Your task to perform on an android device: Open settings Image 0: 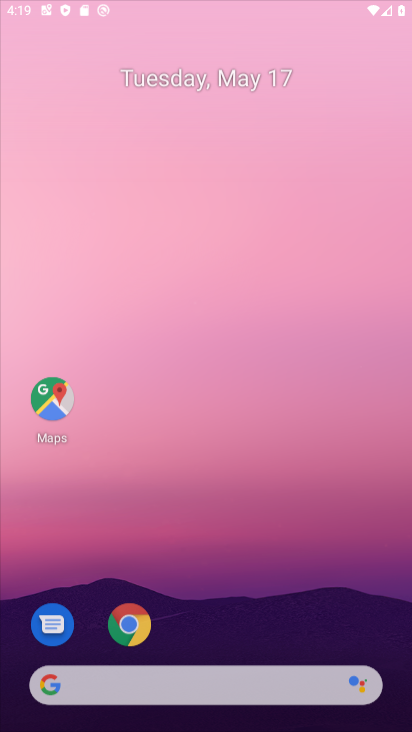
Step 0: drag from (188, 538) to (186, 194)
Your task to perform on an android device: Open settings Image 1: 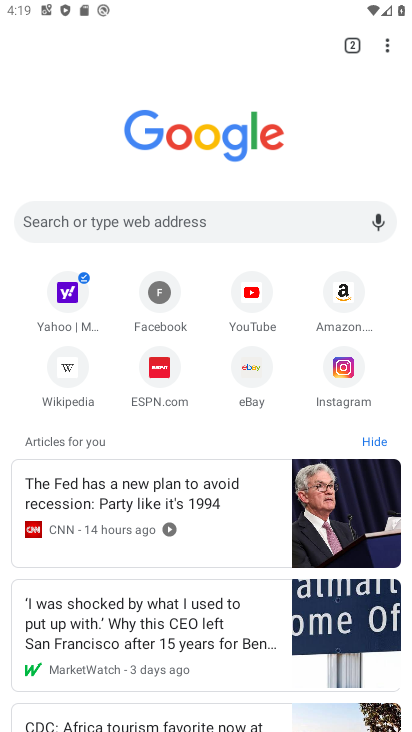
Step 1: press home button
Your task to perform on an android device: Open settings Image 2: 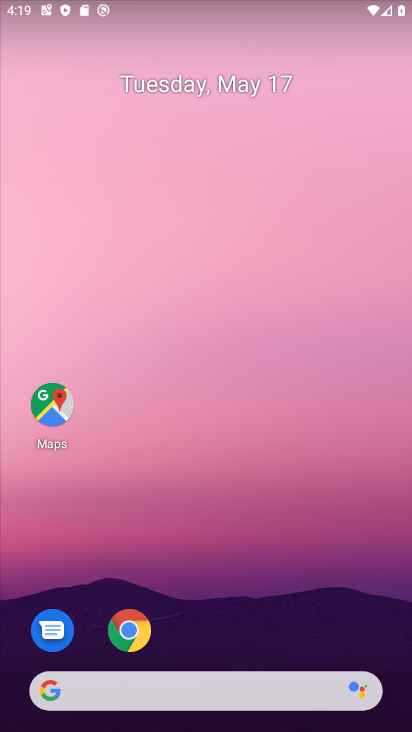
Step 2: drag from (197, 719) to (194, 178)
Your task to perform on an android device: Open settings Image 3: 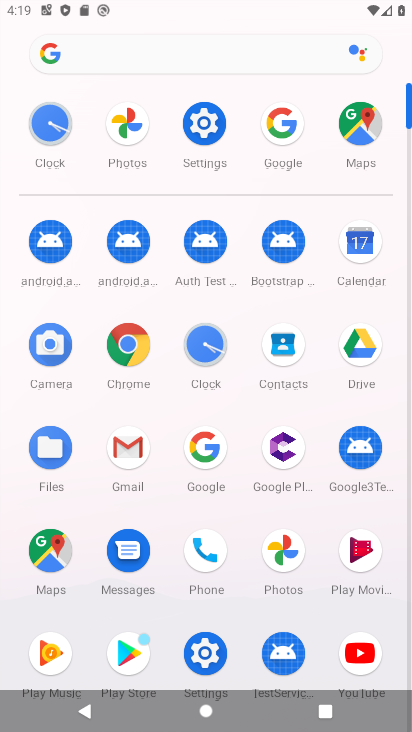
Step 3: click (206, 119)
Your task to perform on an android device: Open settings Image 4: 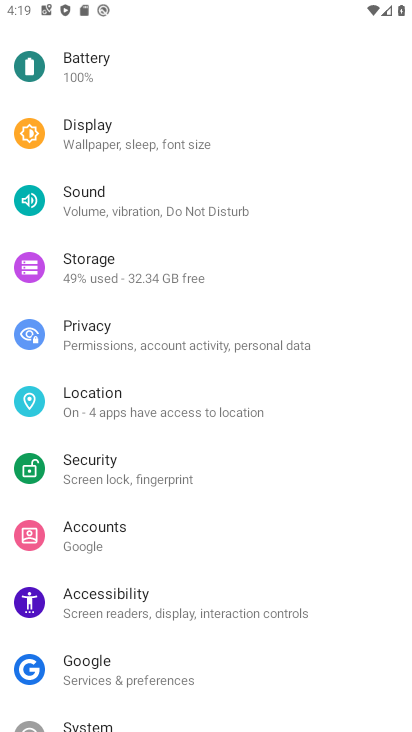
Step 4: task complete